Your task to perform on an android device: Toggle the flashlight Image 0: 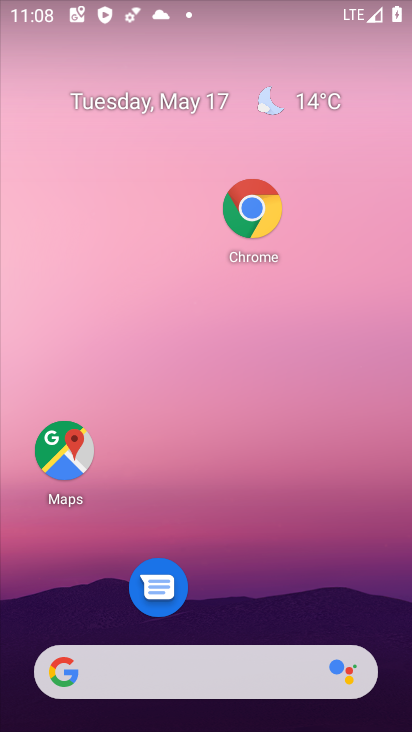
Step 0: drag from (371, 571) to (329, 49)
Your task to perform on an android device: Toggle the flashlight Image 1: 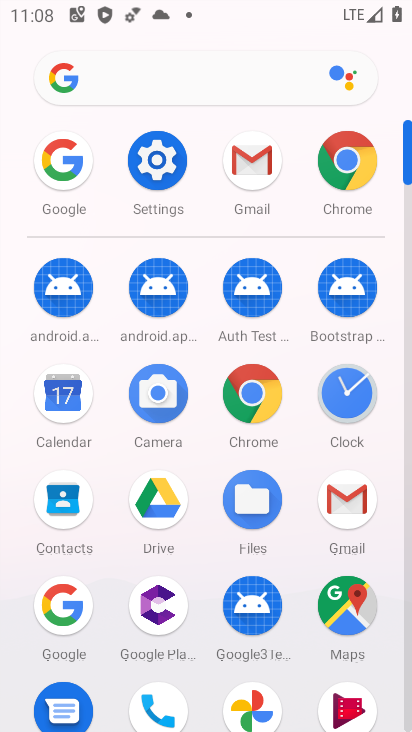
Step 1: click (168, 157)
Your task to perform on an android device: Toggle the flashlight Image 2: 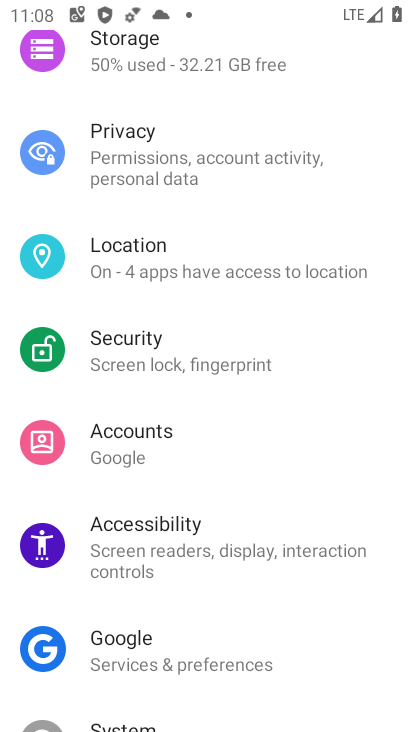
Step 2: drag from (303, 166) to (332, 580)
Your task to perform on an android device: Toggle the flashlight Image 3: 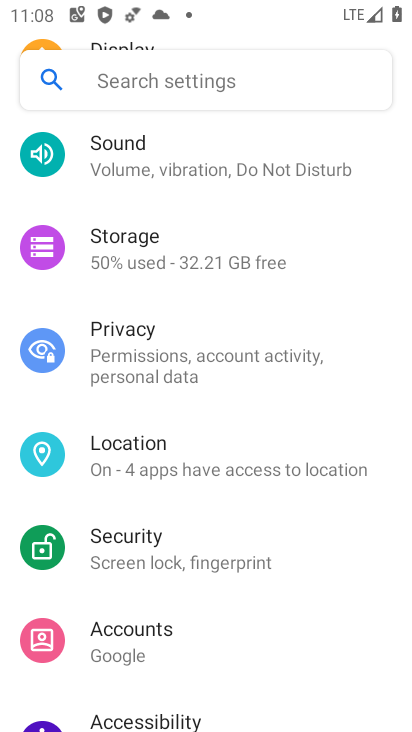
Step 3: drag from (274, 186) to (236, 611)
Your task to perform on an android device: Toggle the flashlight Image 4: 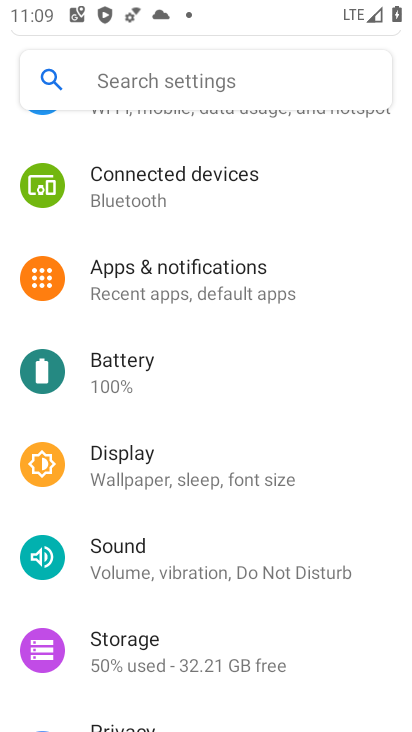
Step 4: click (219, 278)
Your task to perform on an android device: Toggle the flashlight Image 5: 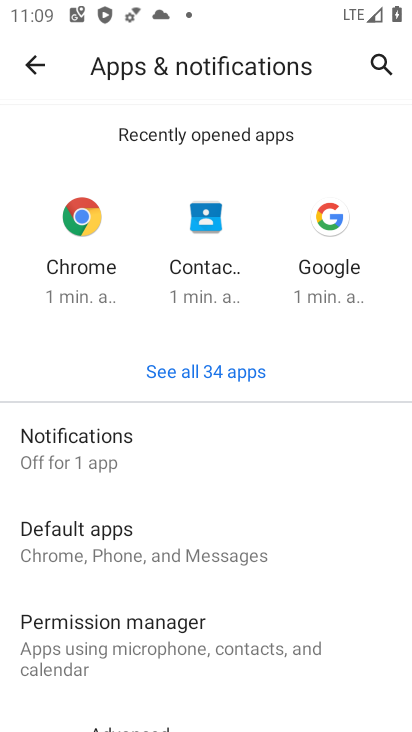
Step 5: drag from (248, 607) to (294, 123)
Your task to perform on an android device: Toggle the flashlight Image 6: 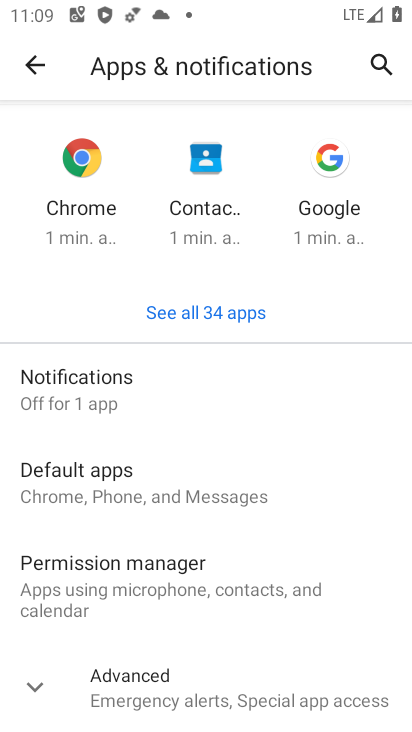
Step 6: click (212, 713)
Your task to perform on an android device: Toggle the flashlight Image 7: 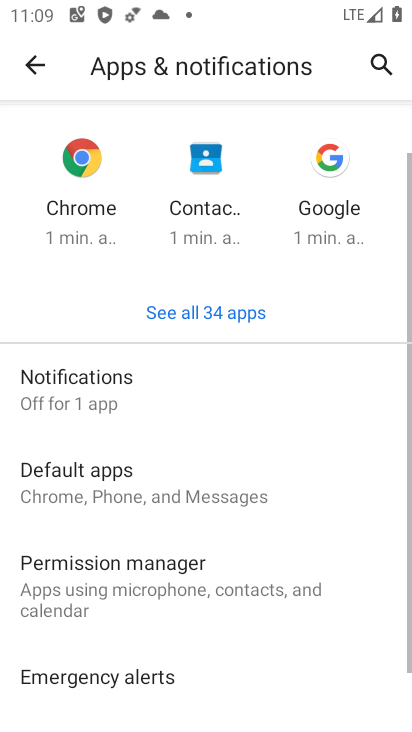
Step 7: drag from (212, 713) to (230, 459)
Your task to perform on an android device: Toggle the flashlight Image 8: 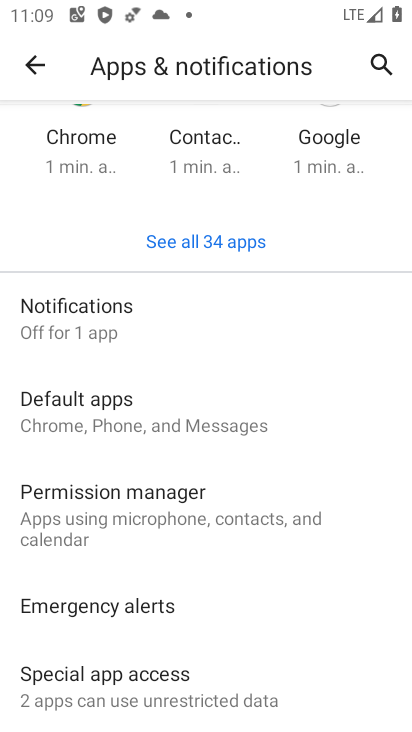
Step 8: click (218, 702)
Your task to perform on an android device: Toggle the flashlight Image 9: 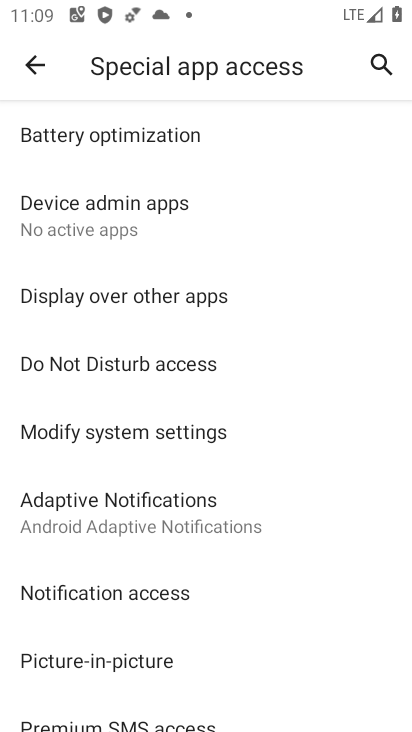
Step 9: task complete